Your task to perform on an android device: Show me popular games on the Play Store Image 0: 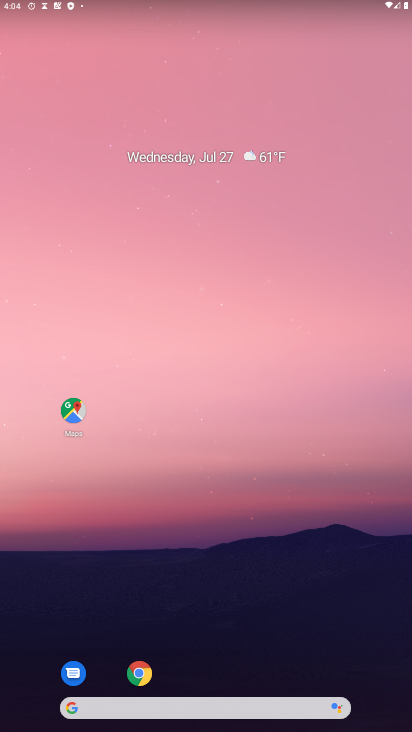
Step 0: drag from (47, 675) to (261, 131)
Your task to perform on an android device: Show me popular games on the Play Store Image 1: 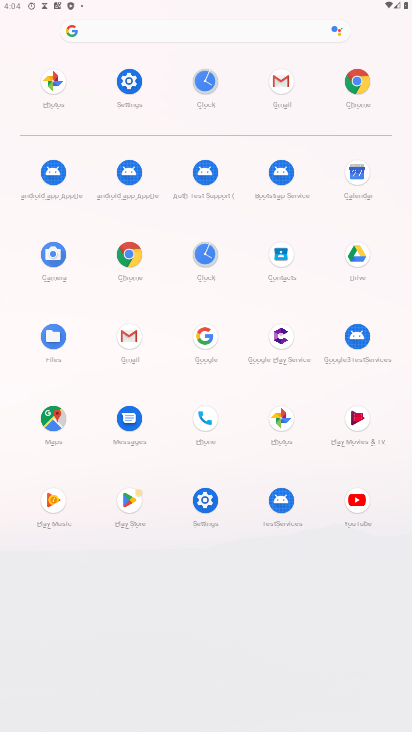
Step 1: click (135, 501)
Your task to perform on an android device: Show me popular games on the Play Store Image 2: 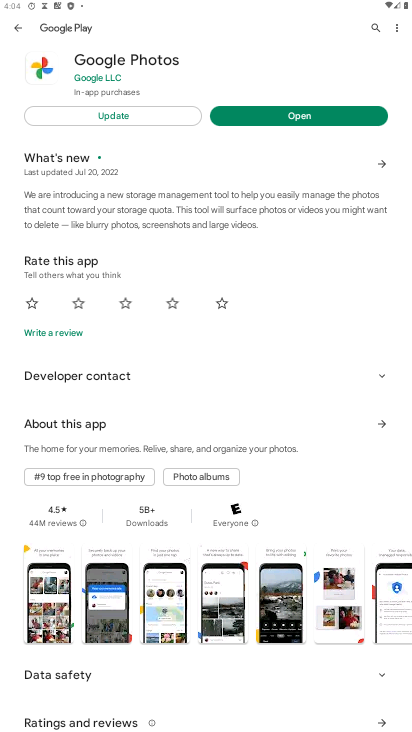
Step 2: click (16, 27)
Your task to perform on an android device: Show me popular games on the Play Store Image 3: 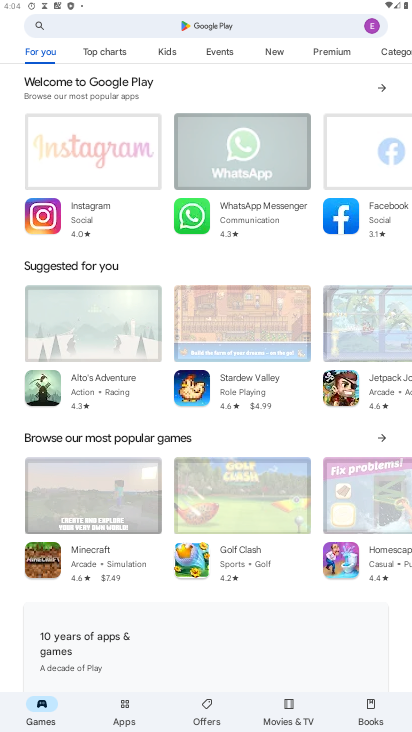
Step 3: click (121, 22)
Your task to perform on an android device: Show me popular games on the Play Store Image 4: 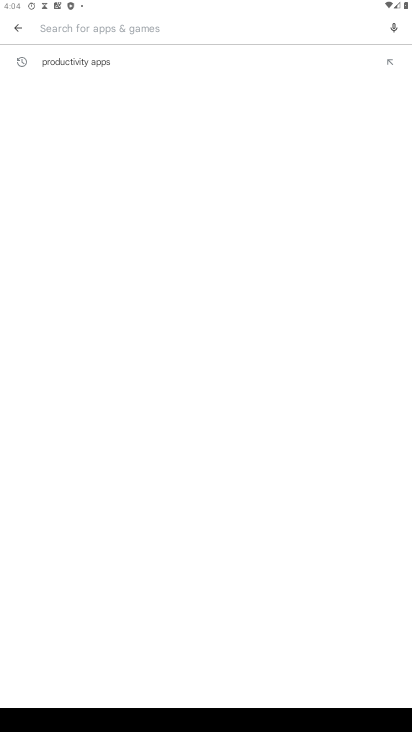
Step 4: type " popular games"
Your task to perform on an android device: Show me popular games on the Play Store Image 5: 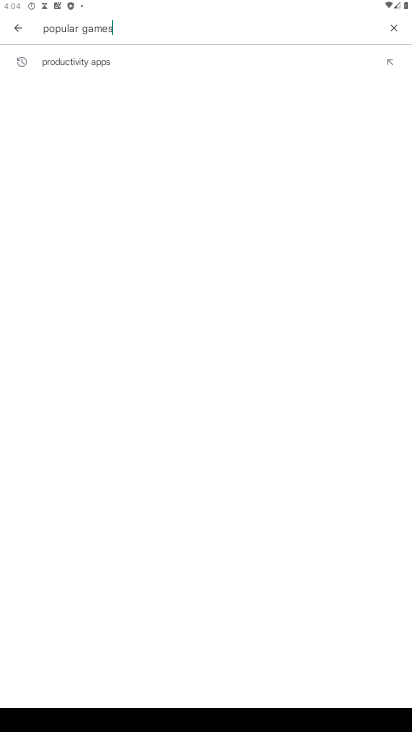
Step 5: type ""
Your task to perform on an android device: Show me popular games on the Play Store Image 6: 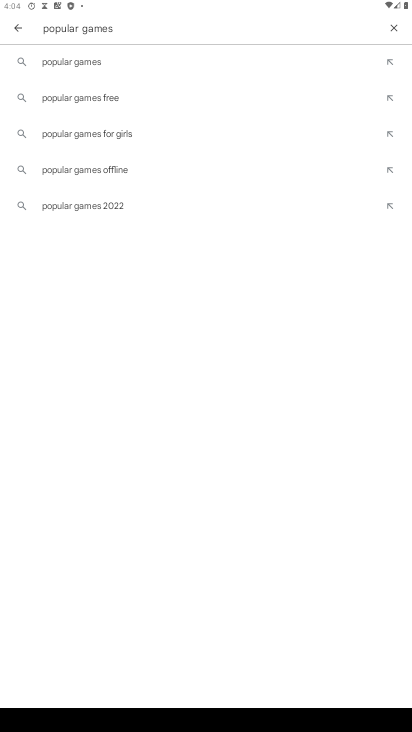
Step 6: click (55, 63)
Your task to perform on an android device: Show me popular games on the Play Store Image 7: 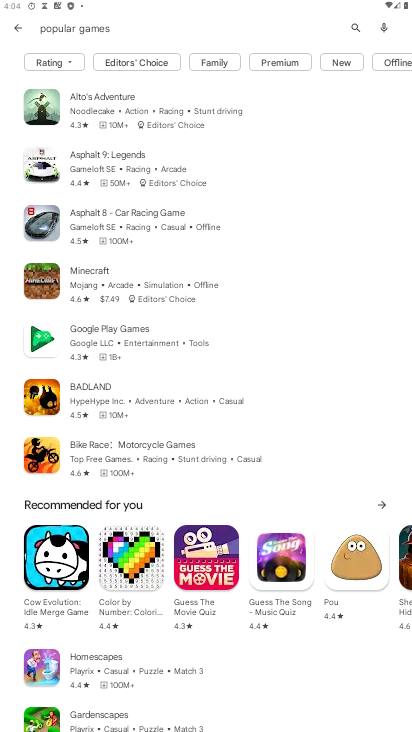
Step 7: task complete